Your task to perform on an android device: turn pop-ups off in chrome Image 0: 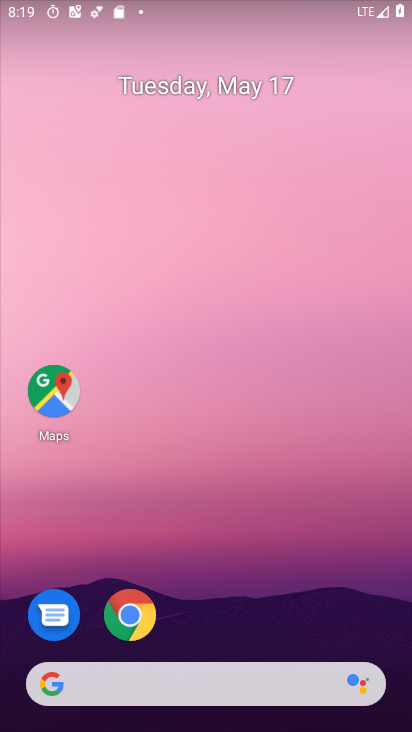
Step 0: click (137, 630)
Your task to perform on an android device: turn pop-ups off in chrome Image 1: 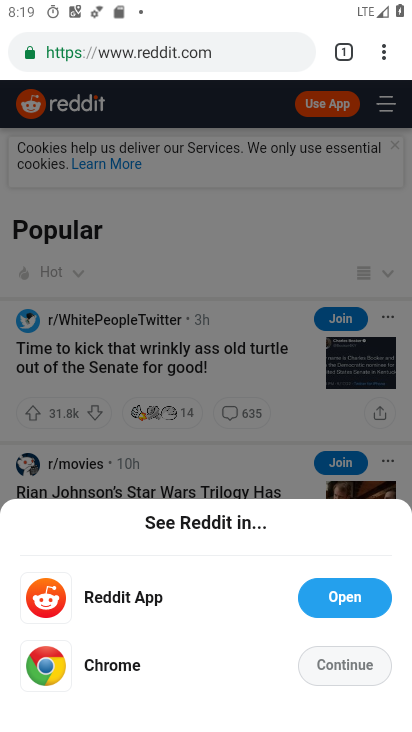
Step 1: drag from (386, 57) to (236, 580)
Your task to perform on an android device: turn pop-ups off in chrome Image 2: 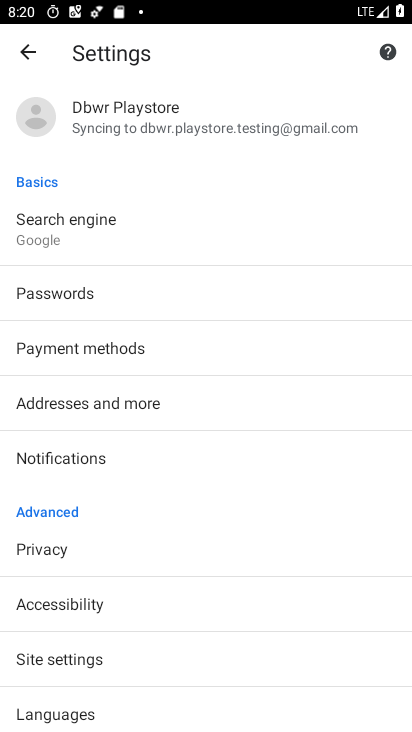
Step 2: click (96, 661)
Your task to perform on an android device: turn pop-ups off in chrome Image 3: 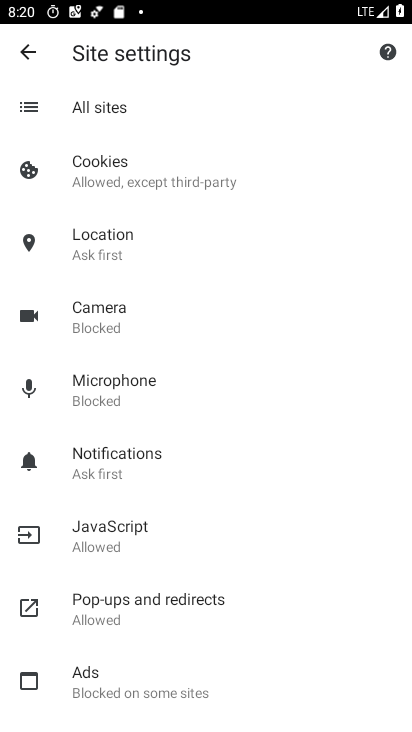
Step 3: click (141, 625)
Your task to perform on an android device: turn pop-ups off in chrome Image 4: 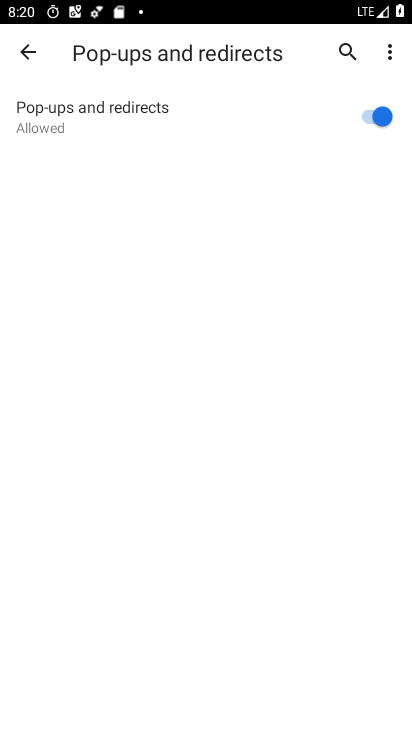
Step 4: click (391, 106)
Your task to perform on an android device: turn pop-ups off in chrome Image 5: 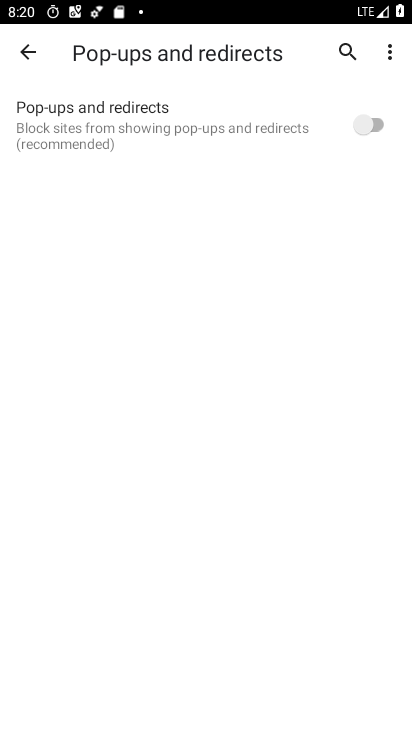
Step 5: task complete